Your task to perform on an android device: See recent photos Image 0: 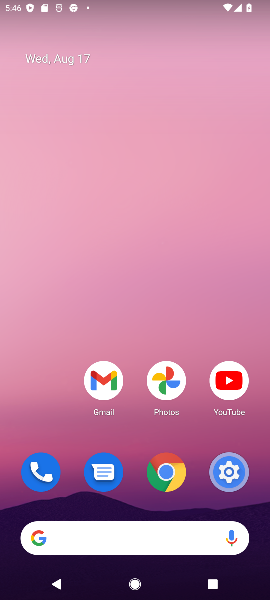
Step 0: click (168, 386)
Your task to perform on an android device: See recent photos Image 1: 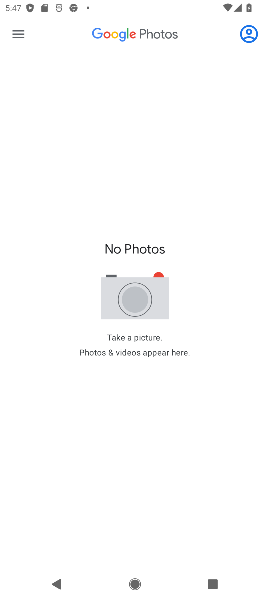
Step 1: click (8, 35)
Your task to perform on an android device: See recent photos Image 2: 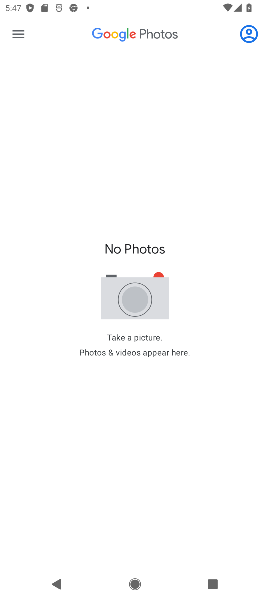
Step 2: click (23, 28)
Your task to perform on an android device: See recent photos Image 3: 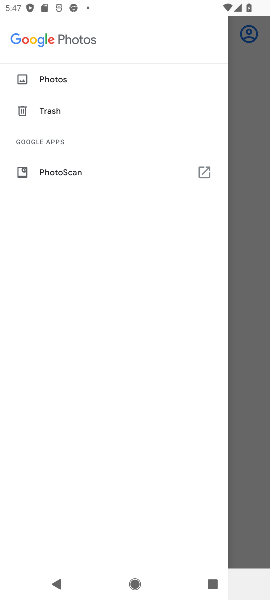
Step 3: click (46, 81)
Your task to perform on an android device: See recent photos Image 4: 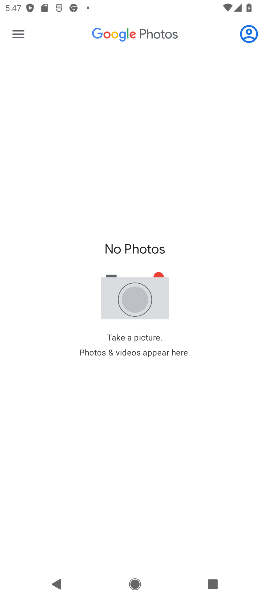
Step 4: task complete